Your task to perform on an android device: Search for pizza restaurants on Maps Image 0: 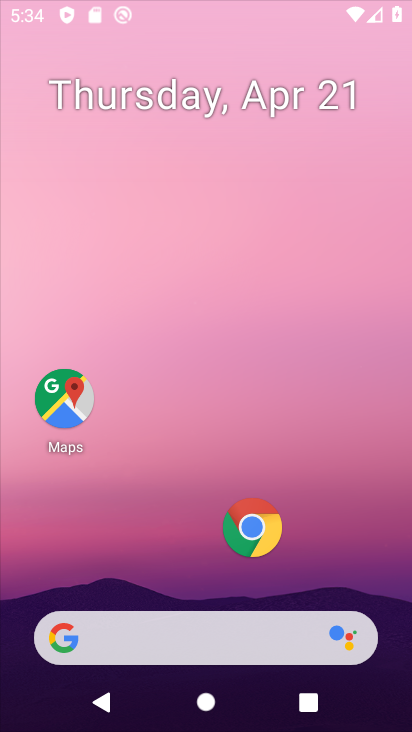
Step 0: click (63, 401)
Your task to perform on an android device: Search for pizza restaurants on Maps Image 1: 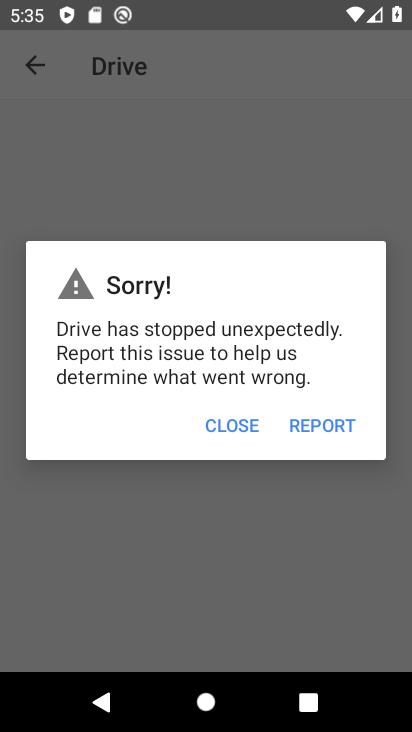
Step 1: press back button
Your task to perform on an android device: Search for pizza restaurants on Maps Image 2: 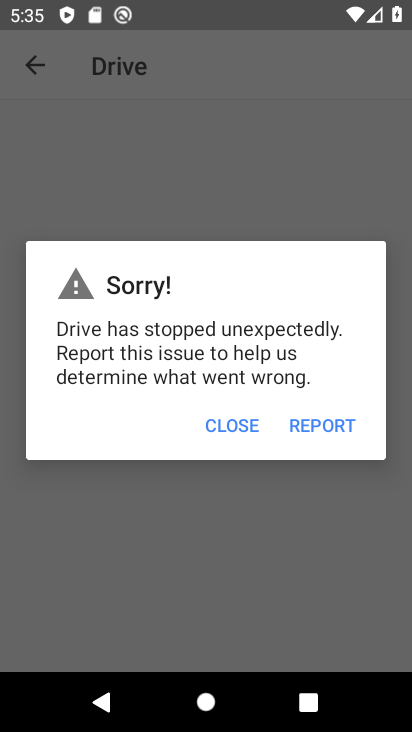
Step 2: press home button
Your task to perform on an android device: Search for pizza restaurants on Maps Image 3: 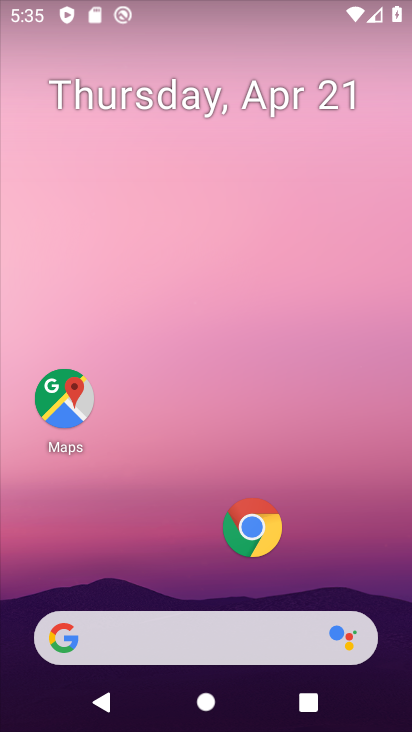
Step 3: click (63, 397)
Your task to perform on an android device: Search for pizza restaurants on Maps Image 4: 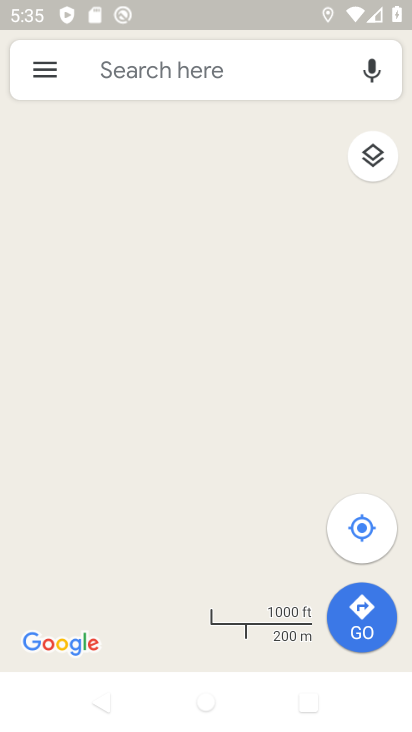
Step 4: click (176, 80)
Your task to perform on an android device: Search for pizza restaurants on Maps Image 5: 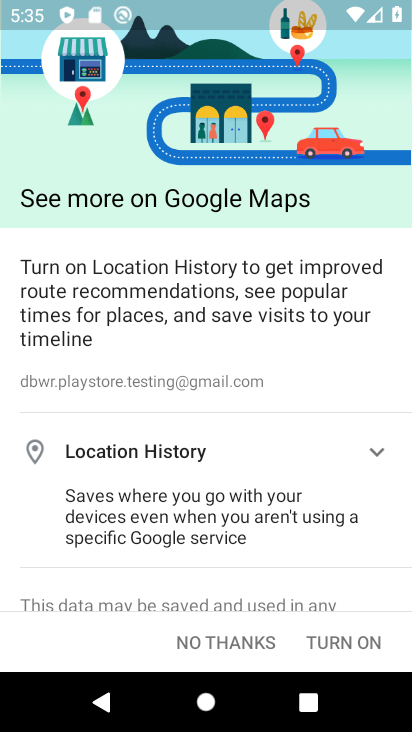
Step 5: click (228, 640)
Your task to perform on an android device: Search for pizza restaurants on Maps Image 6: 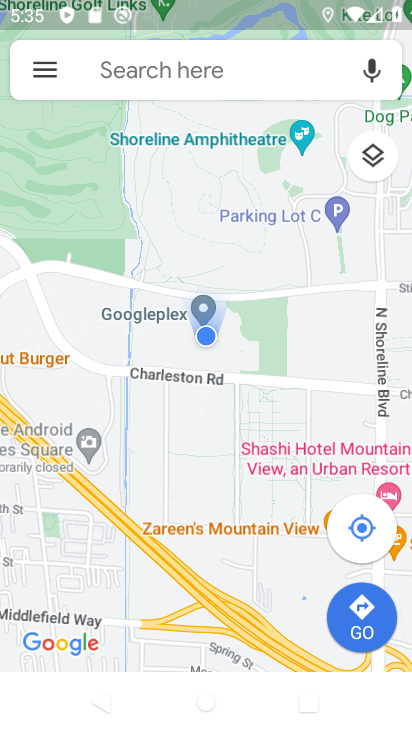
Step 6: click (182, 65)
Your task to perform on an android device: Search for pizza restaurants on Maps Image 7: 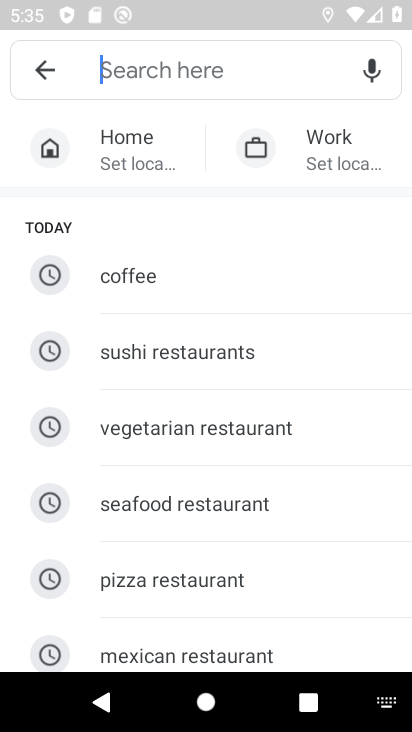
Step 7: click (197, 586)
Your task to perform on an android device: Search for pizza restaurants on Maps Image 8: 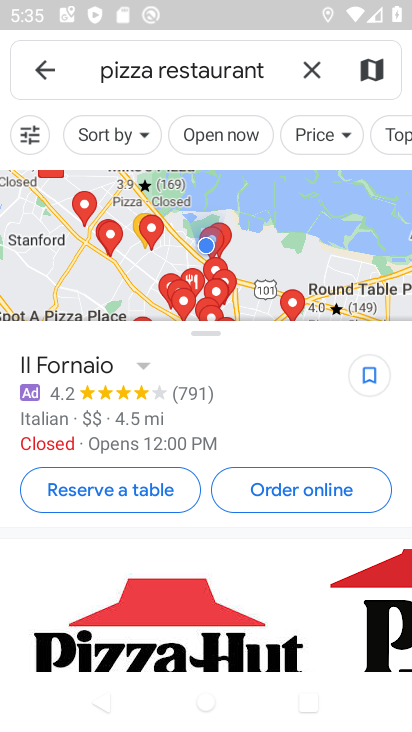
Step 8: task complete